Your task to perform on an android device: add a contact Image 0: 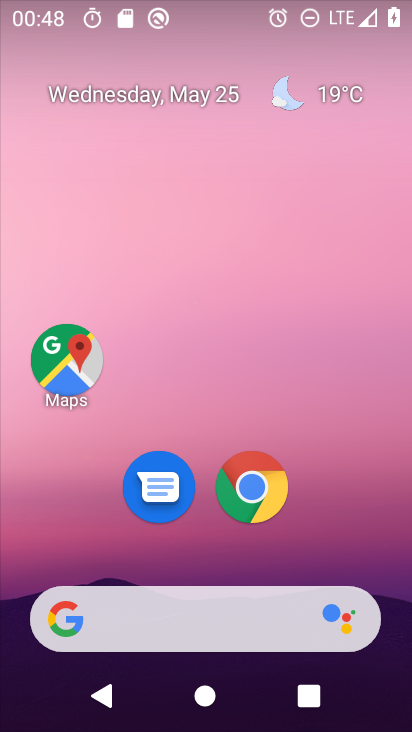
Step 0: drag from (377, 581) to (305, 14)
Your task to perform on an android device: add a contact Image 1: 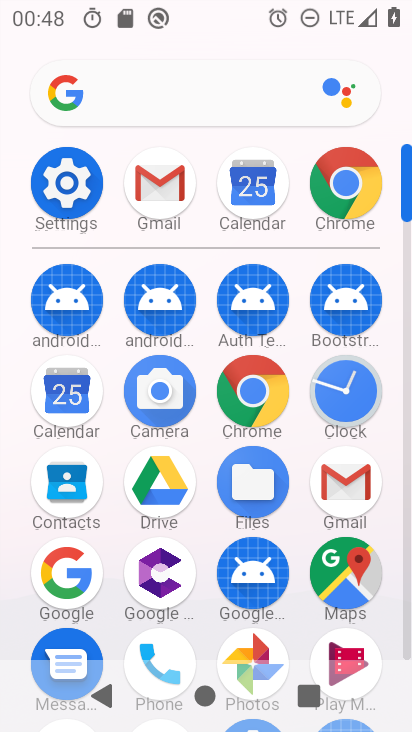
Step 1: click (68, 479)
Your task to perform on an android device: add a contact Image 2: 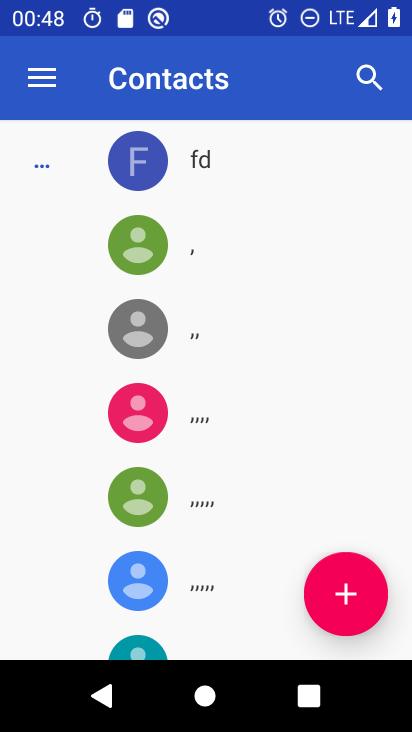
Step 2: click (329, 605)
Your task to perform on an android device: add a contact Image 3: 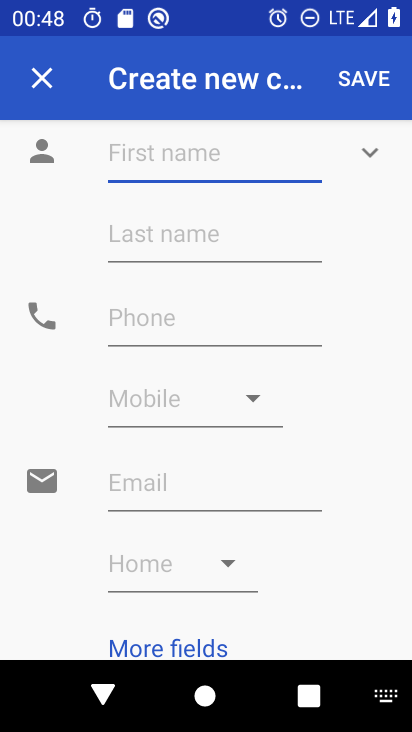
Step 3: type "nippy"
Your task to perform on an android device: add a contact Image 4: 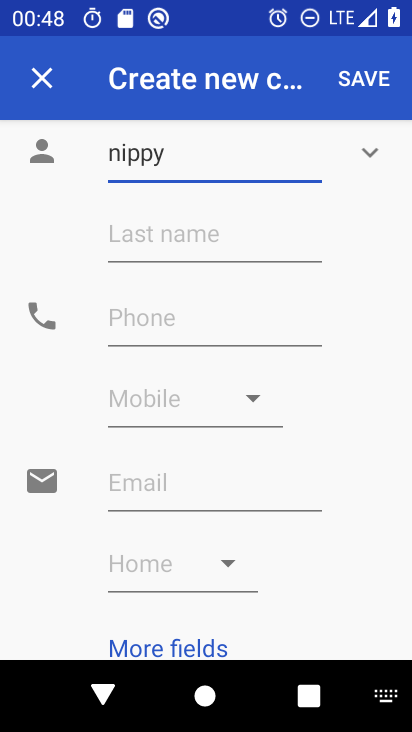
Step 4: click (210, 326)
Your task to perform on an android device: add a contact Image 5: 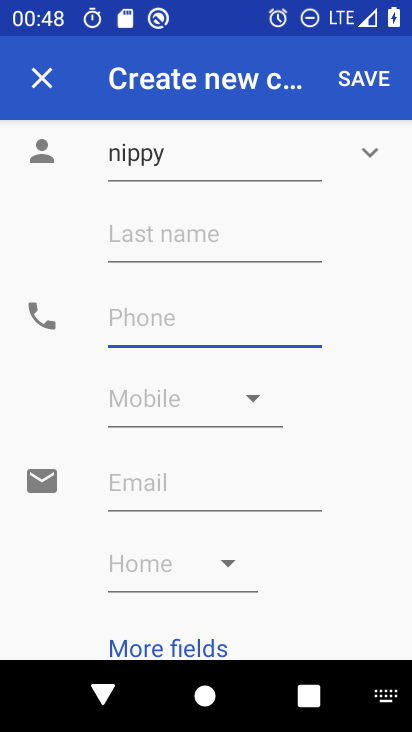
Step 5: type "9887666554"
Your task to perform on an android device: add a contact Image 6: 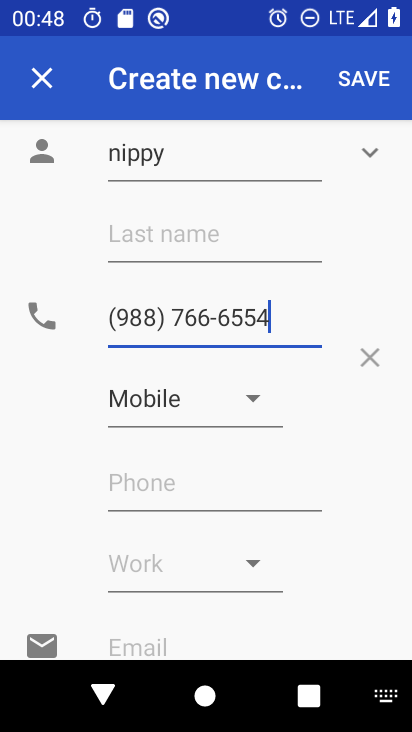
Step 6: click (363, 92)
Your task to perform on an android device: add a contact Image 7: 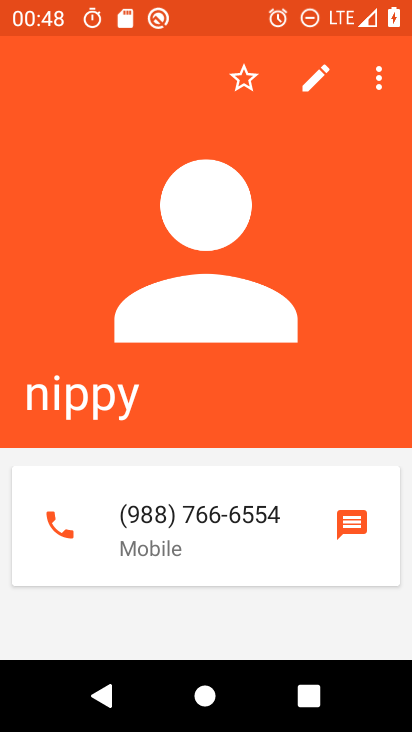
Step 7: task complete